Your task to perform on an android device: What's on my calendar today? Image 0: 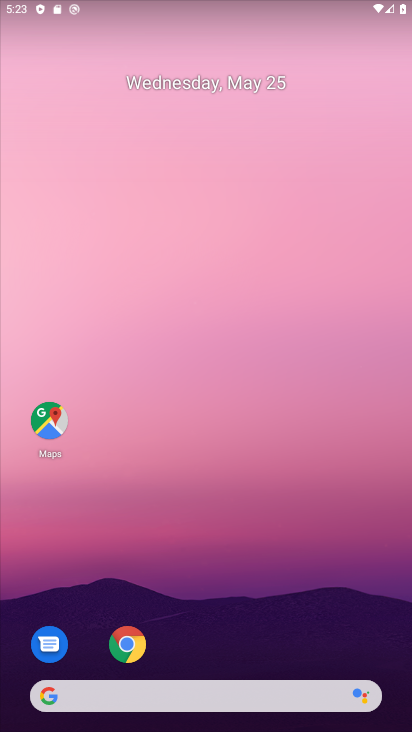
Step 0: press home button
Your task to perform on an android device: What's on my calendar today? Image 1: 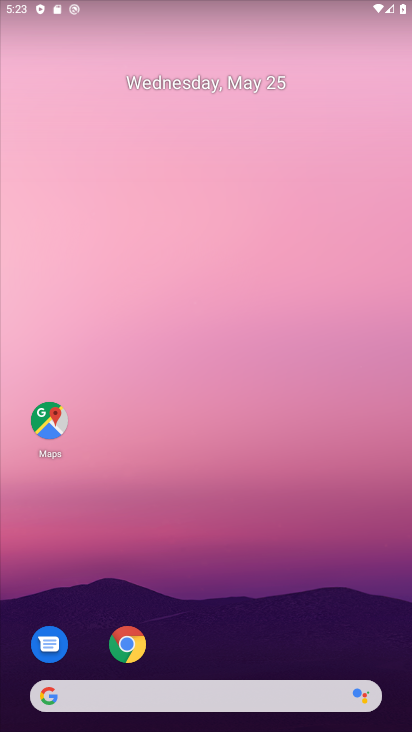
Step 1: drag from (368, 632) to (395, 343)
Your task to perform on an android device: What's on my calendar today? Image 2: 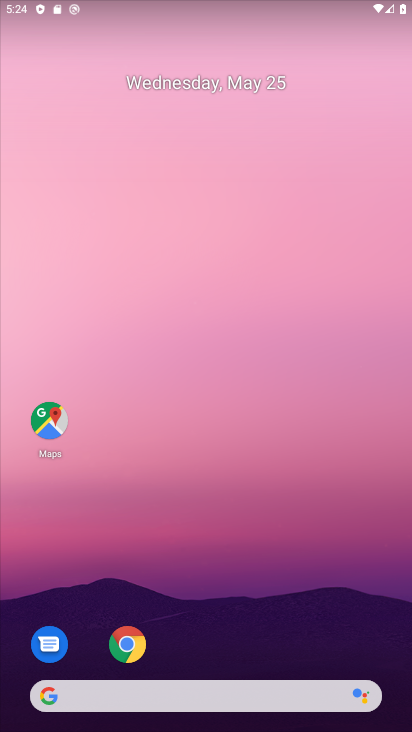
Step 2: drag from (258, 598) to (267, 40)
Your task to perform on an android device: What's on my calendar today? Image 3: 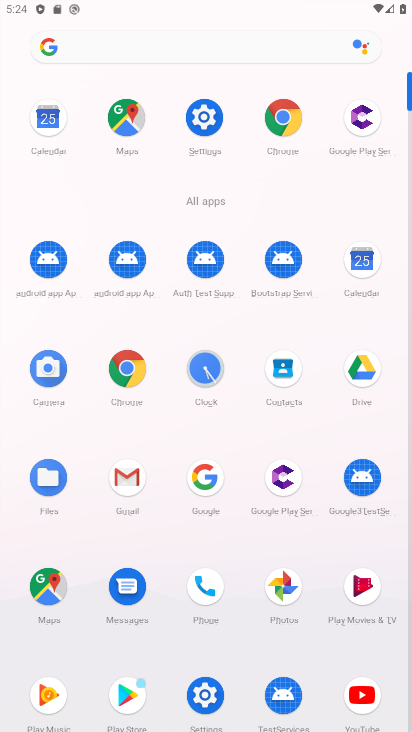
Step 3: click (343, 273)
Your task to perform on an android device: What's on my calendar today? Image 4: 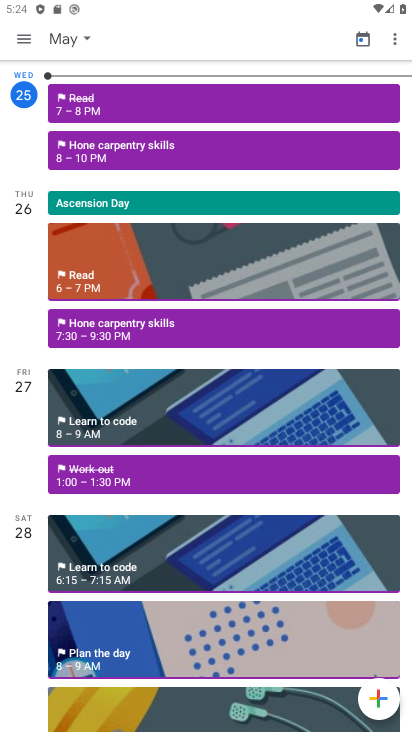
Step 4: click (81, 36)
Your task to perform on an android device: What's on my calendar today? Image 5: 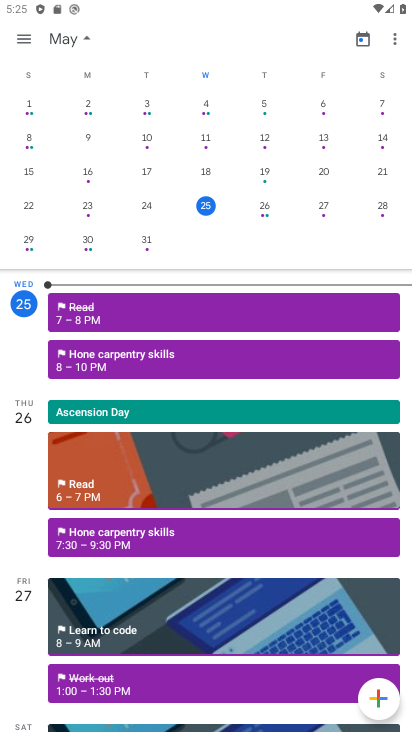
Step 5: click (75, 41)
Your task to perform on an android device: What's on my calendar today? Image 6: 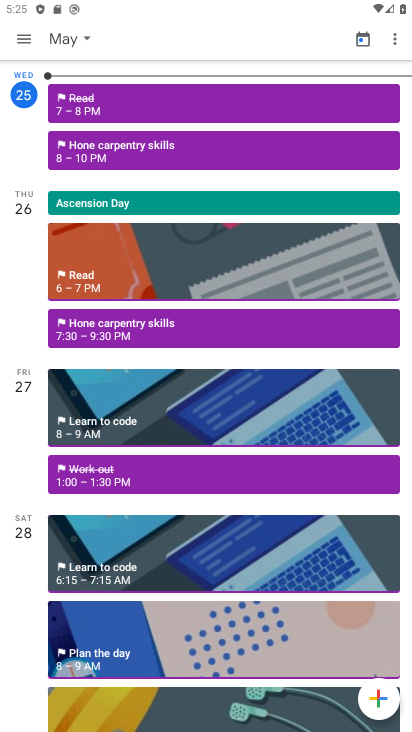
Step 6: task complete